Your task to perform on an android device: Find coffee shops on Maps Image 0: 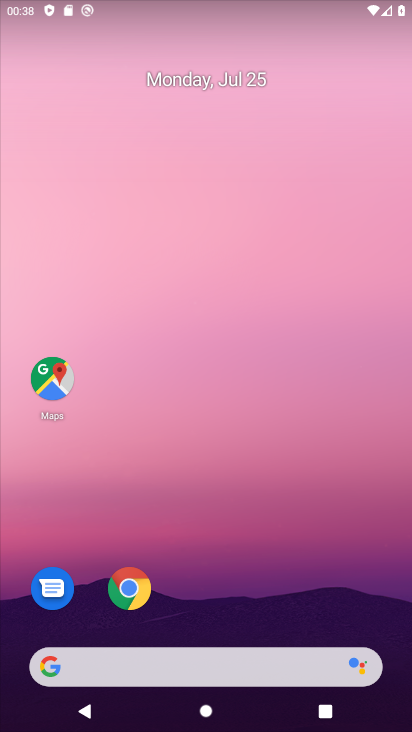
Step 0: click (44, 375)
Your task to perform on an android device: Find coffee shops on Maps Image 1: 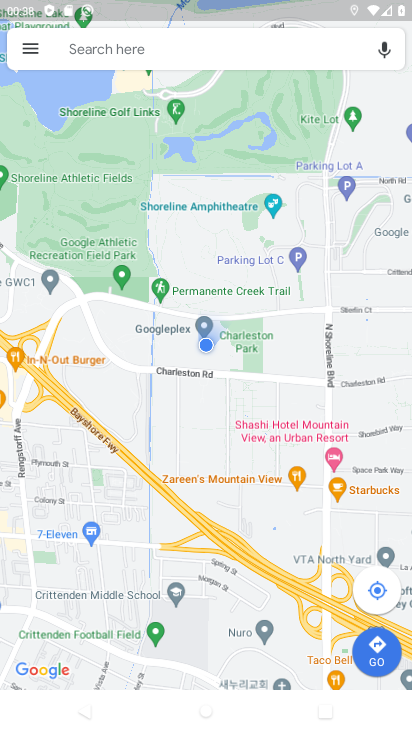
Step 1: click (134, 47)
Your task to perform on an android device: Find coffee shops on Maps Image 2: 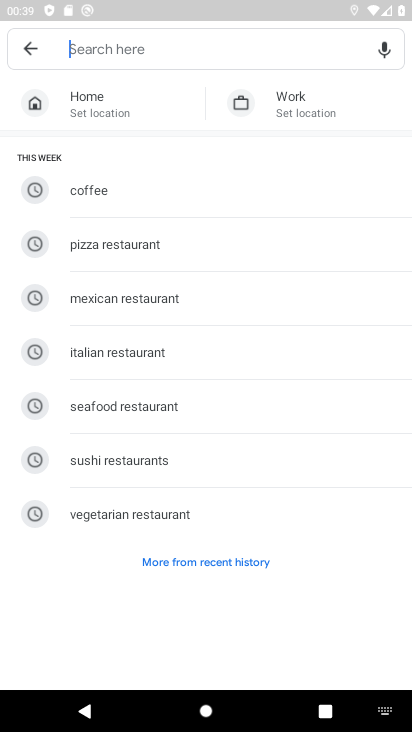
Step 2: type "coffee shops"
Your task to perform on an android device: Find coffee shops on Maps Image 3: 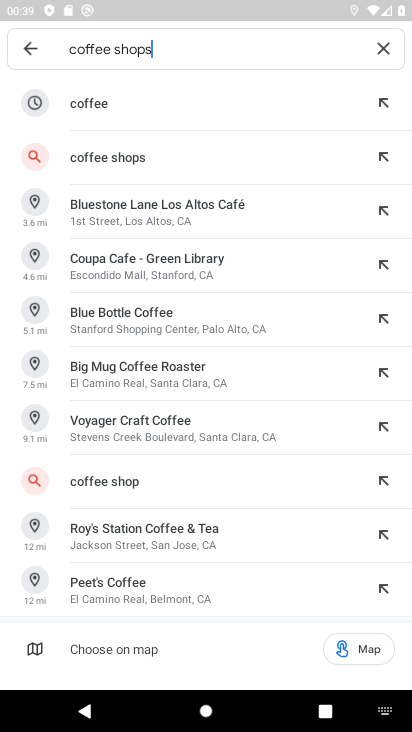
Step 3: click (128, 158)
Your task to perform on an android device: Find coffee shops on Maps Image 4: 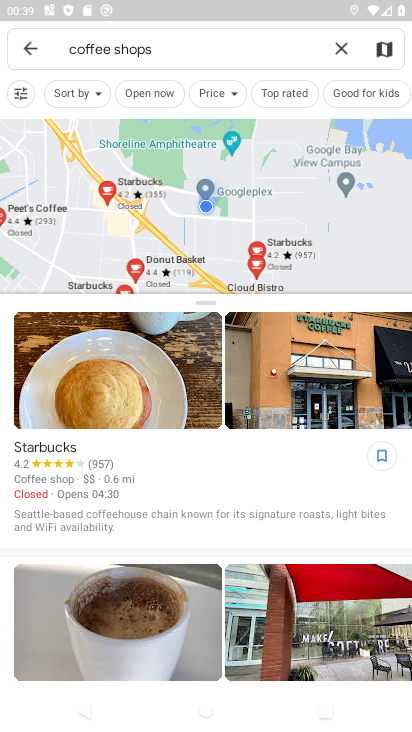
Step 4: task complete